Your task to perform on an android device: turn off priority inbox in the gmail app Image 0: 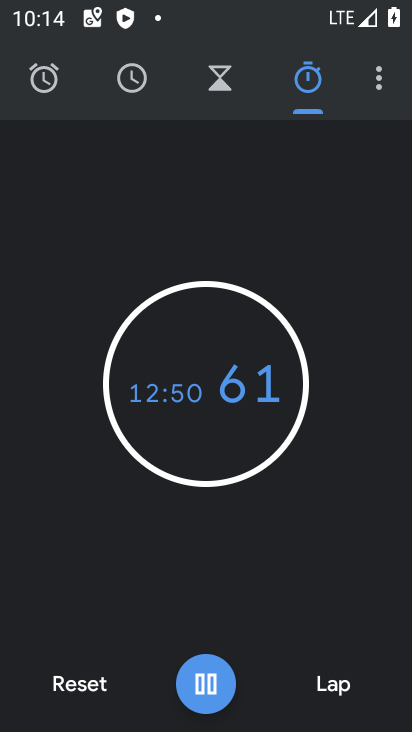
Step 0: click (65, 684)
Your task to perform on an android device: turn off priority inbox in the gmail app Image 1: 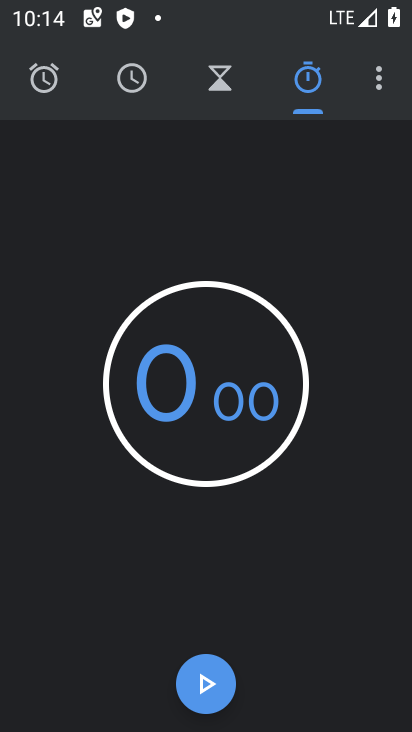
Step 1: press home button
Your task to perform on an android device: turn off priority inbox in the gmail app Image 2: 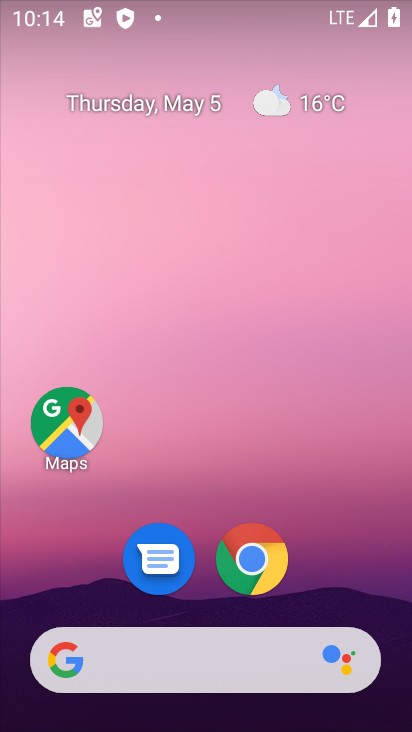
Step 2: drag from (210, 594) to (335, 0)
Your task to perform on an android device: turn off priority inbox in the gmail app Image 3: 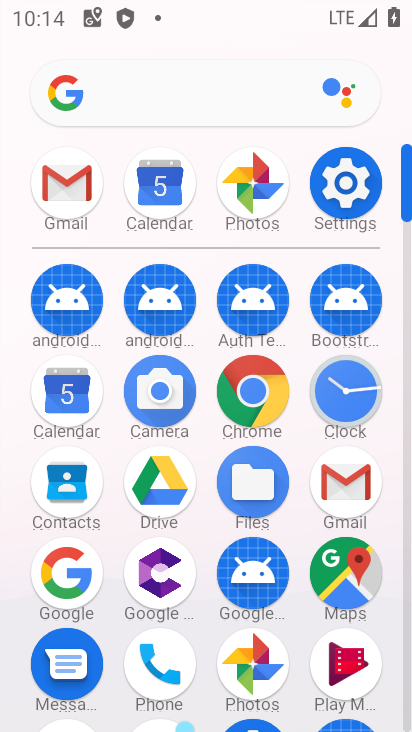
Step 3: click (361, 492)
Your task to perform on an android device: turn off priority inbox in the gmail app Image 4: 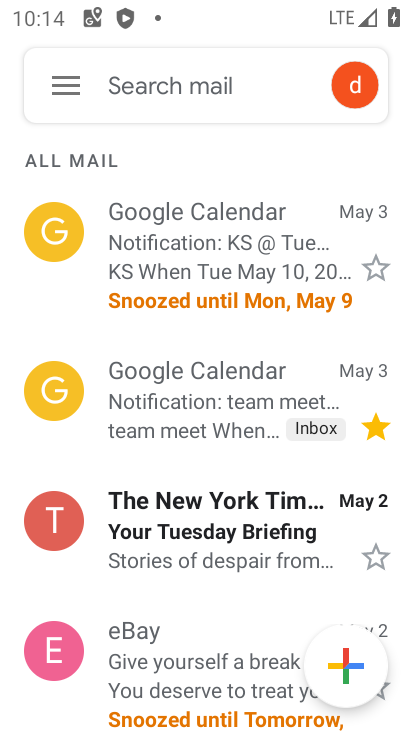
Step 4: click (78, 84)
Your task to perform on an android device: turn off priority inbox in the gmail app Image 5: 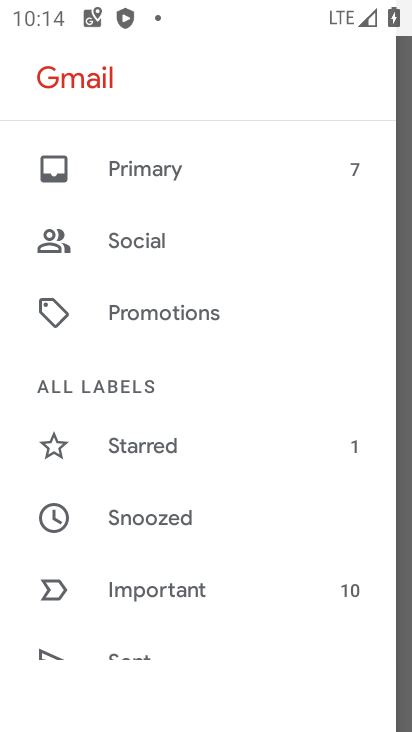
Step 5: drag from (191, 564) to (247, 217)
Your task to perform on an android device: turn off priority inbox in the gmail app Image 6: 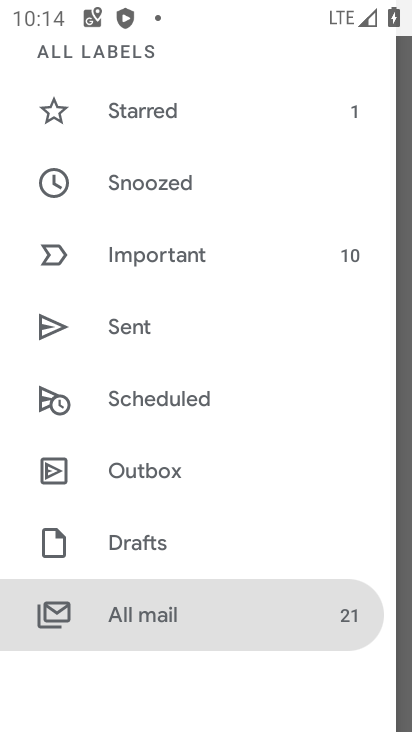
Step 6: drag from (185, 566) to (261, 182)
Your task to perform on an android device: turn off priority inbox in the gmail app Image 7: 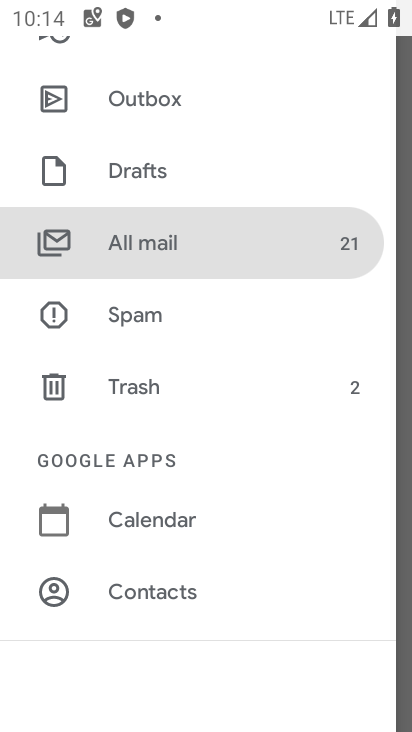
Step 7: drag from (214, 603) to (251, 179)
Your task to perform on an android device: turn off priority inbox in the gmail app Image 8: 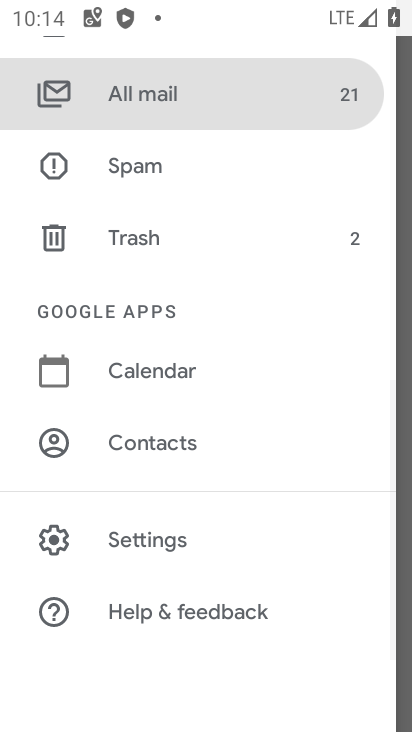
Step 8: click (174, 555)
Your task to perform on an android device: turn off priority inbox in the gmail app Image 9: 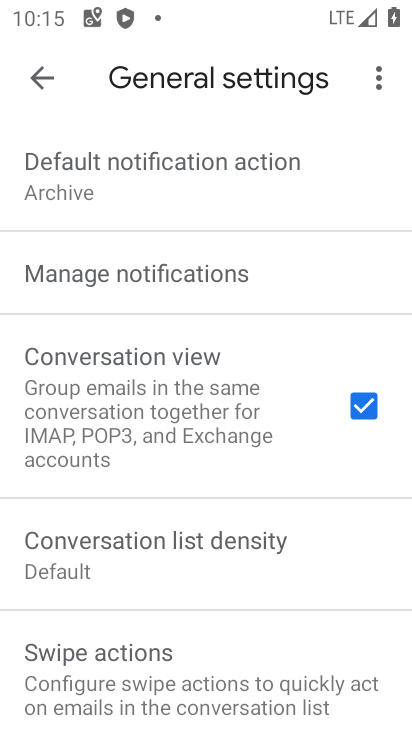
Step 9: click (55, 72)
Your task to perform on an android device: turn off priority inbox in the gmail app Image 10: 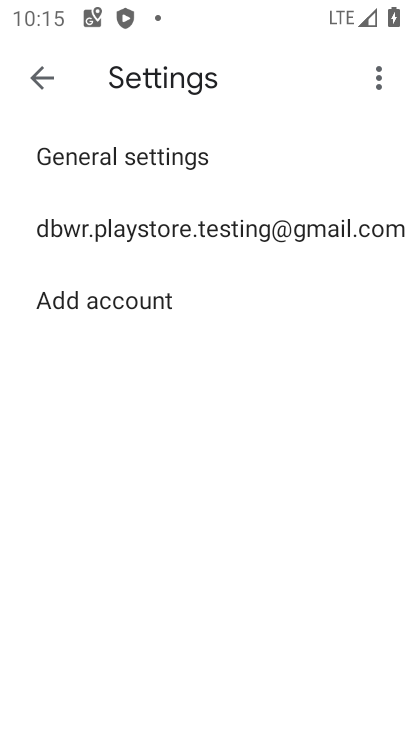
Step 10: click (147, 232)
Your task to perform on an android device: turn off priority inbox in the gmail app Image 11: 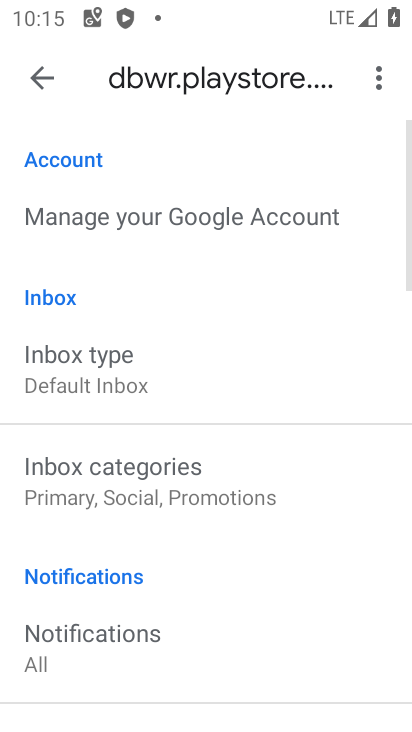
Step 11: click (103, 384)
Your task to perform on an android device: turn off priority inbox in the gmail app Image 12: 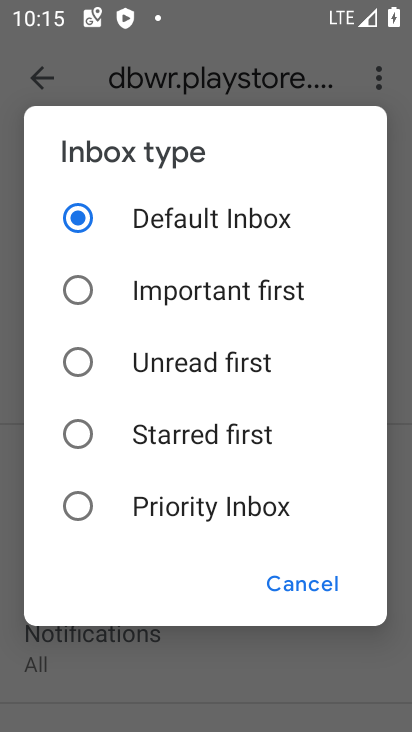
Step 12: click (88, 304)
Your task to perform on an android device: turn off priority inbox in the gmail app Image 13: 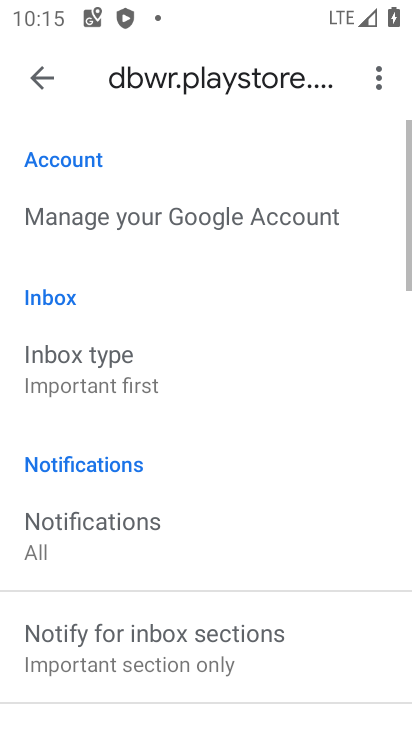
Step 13: task complete